Your task to perform on an android device: Open location settings Image 0: 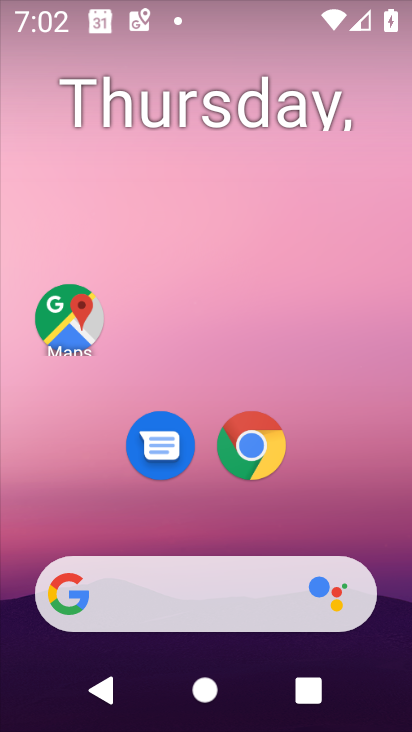
Step 0: drag from (401, 654) to (127, 0)
Your task to perform on an android device: Open location settings Image 1: 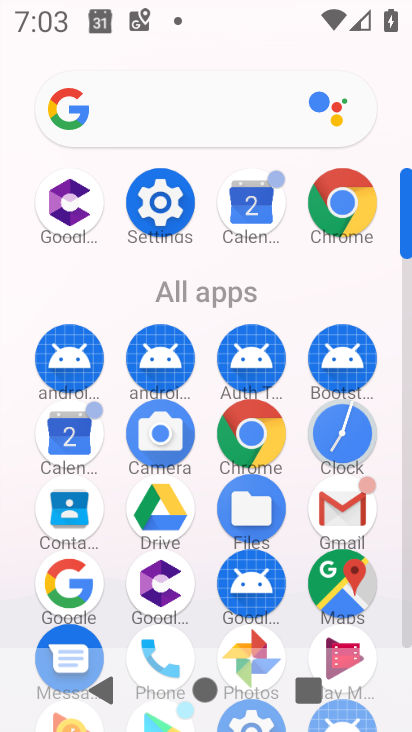
Step 1: click (149, 186)
Your task to perform on an android device: Open location settings Image 2: 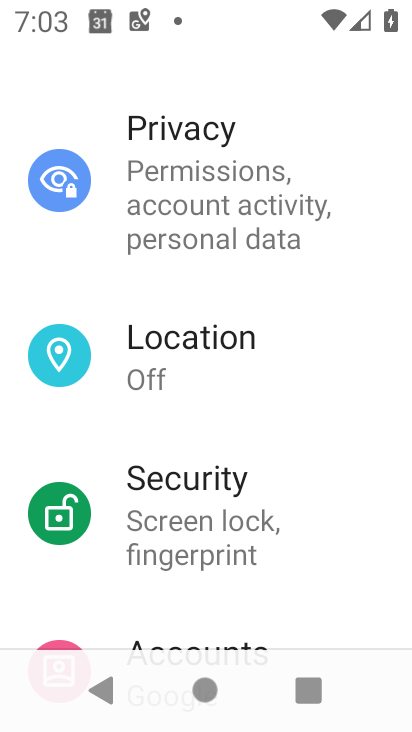
Step 2: click (279, 343)
Your task to perform on an android device: Open location settings Image 3: 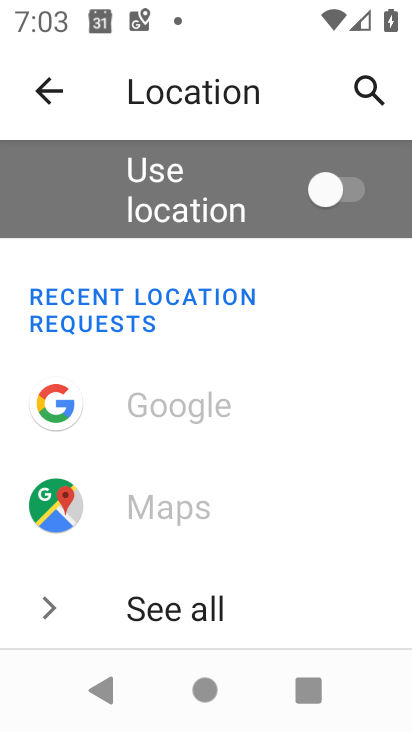
Step 3: task complete